Your task to perform on an android device: Open privacy settings Image 0: 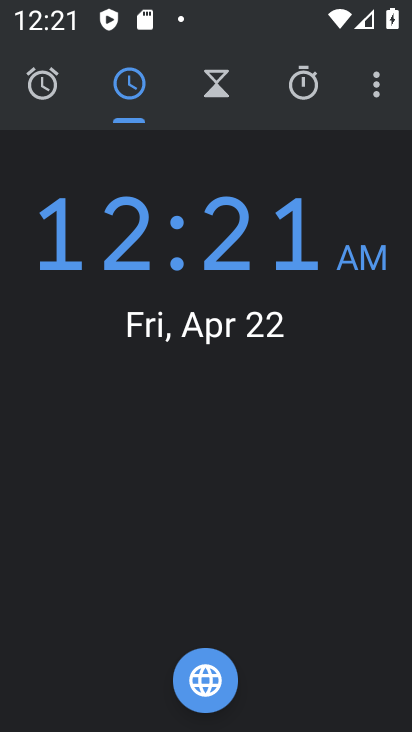
Step 0: press home button
Your task to perform on an android device: Open privacy settings Image 1: 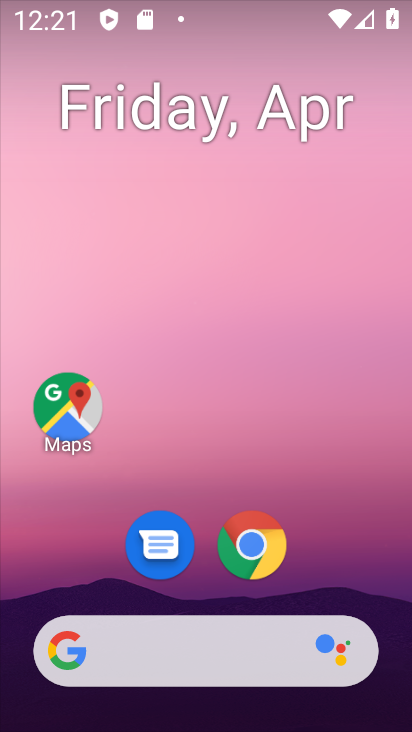
Step 1: drag from (300, 538) to (300, 21)
Your task to perform on an android device: Open privacy settings Image 2: 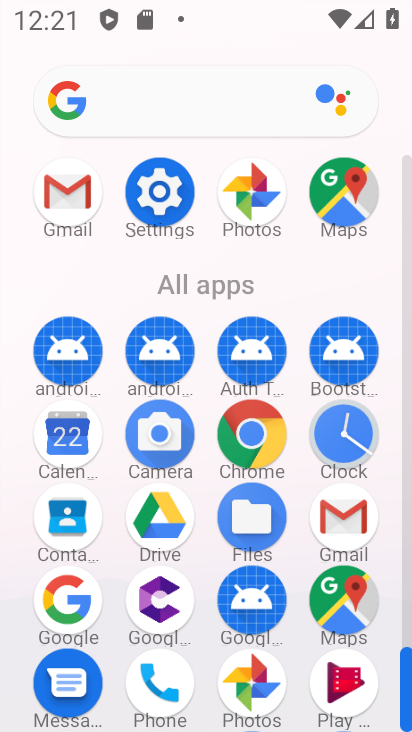
Step 2: click (163, 195)
Your task to perform on an android device: Open privacy settings Image 3: 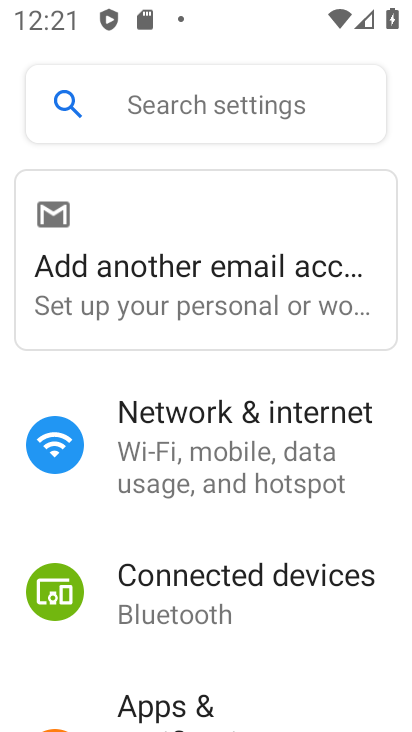
Step 3: drag from (308, 632) to (276, 127)
Your task to perform on an android device: Open privacy settings Image 4: 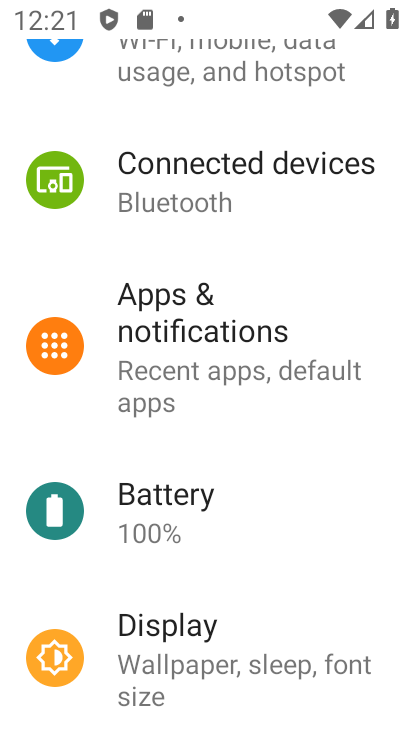
Step 4: drag from (260, 616) to (251, 312)
Your task to perform on an android device: Open privacy settings Image 5: 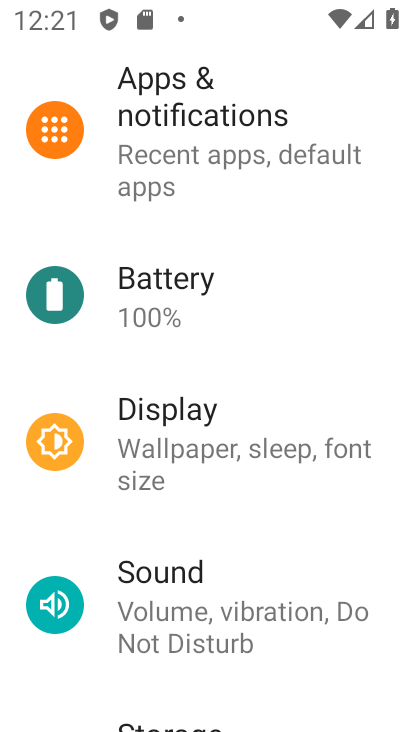
Step 5: drag from (285, 626) to (286, 265)
Your task to perform on an android device: Open privacy settings Image 6: 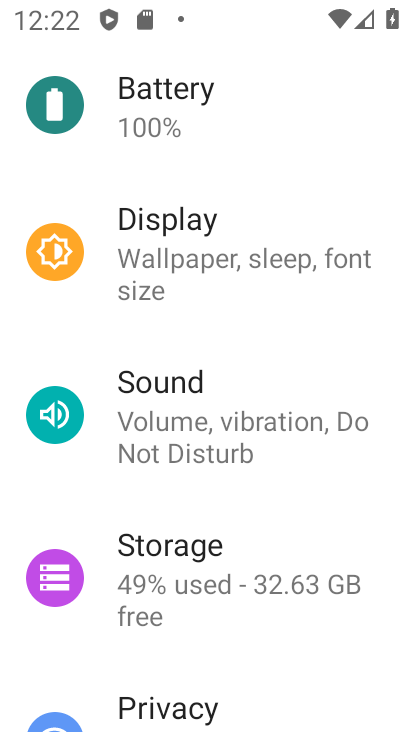
Step 6: click (232, 709)
Your task to perform on an android device: Open privacy settings Image 7: 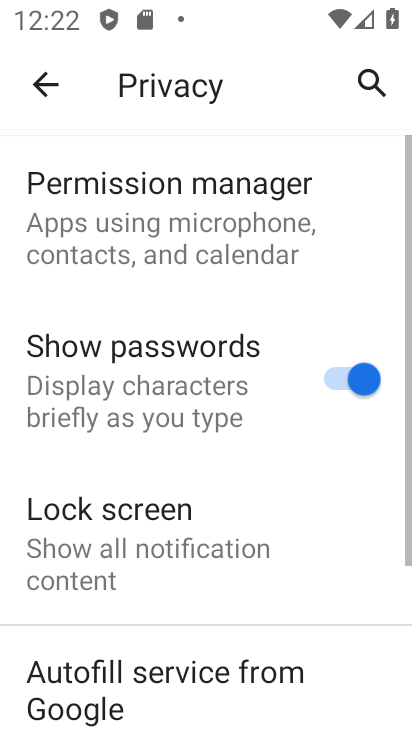
Step 7: task complete